Your task to perform on an android device: open app "TextNow: Call + Text Unlimited" (install if not already installed) Image 0: 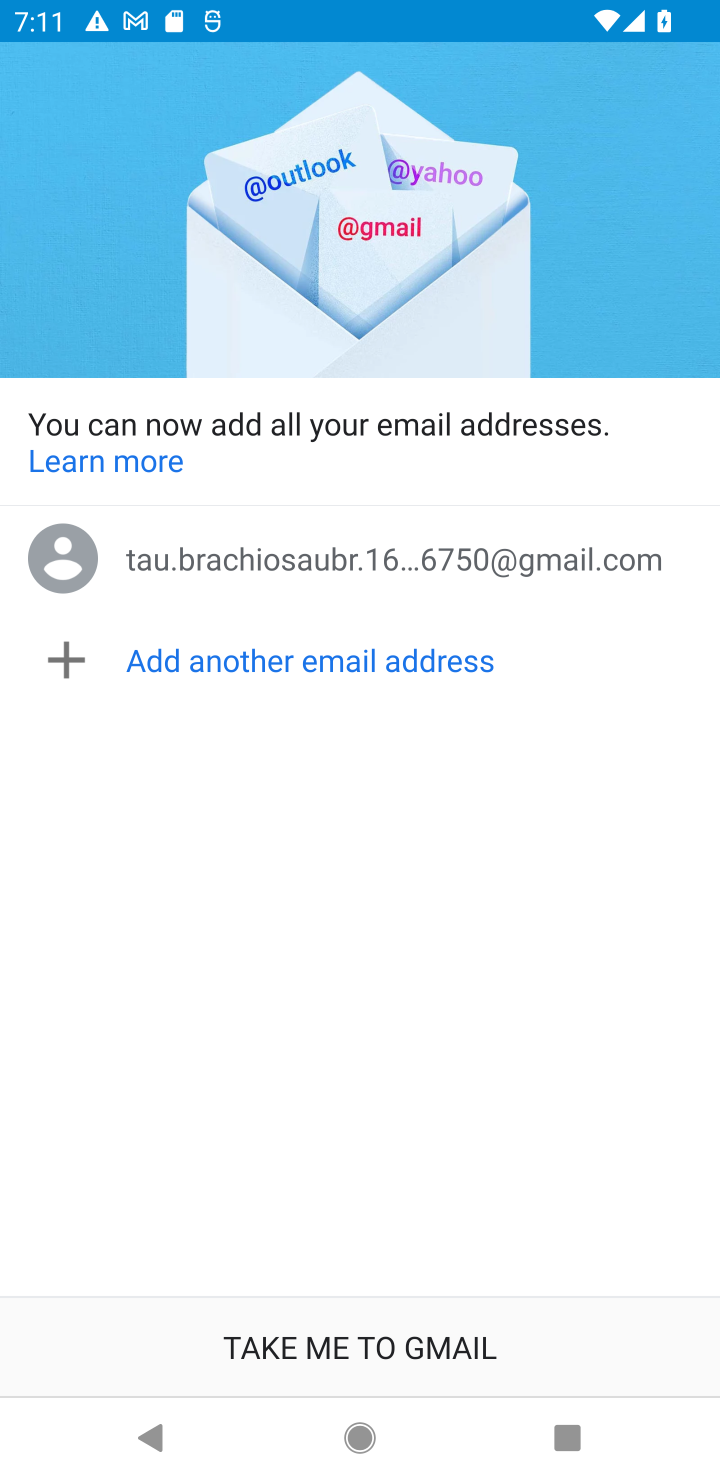
Step 0: press home button
Your task to perform on an android device: open app "TextNow: Call + Text Unlimited" (install if not already installed) Image 1: 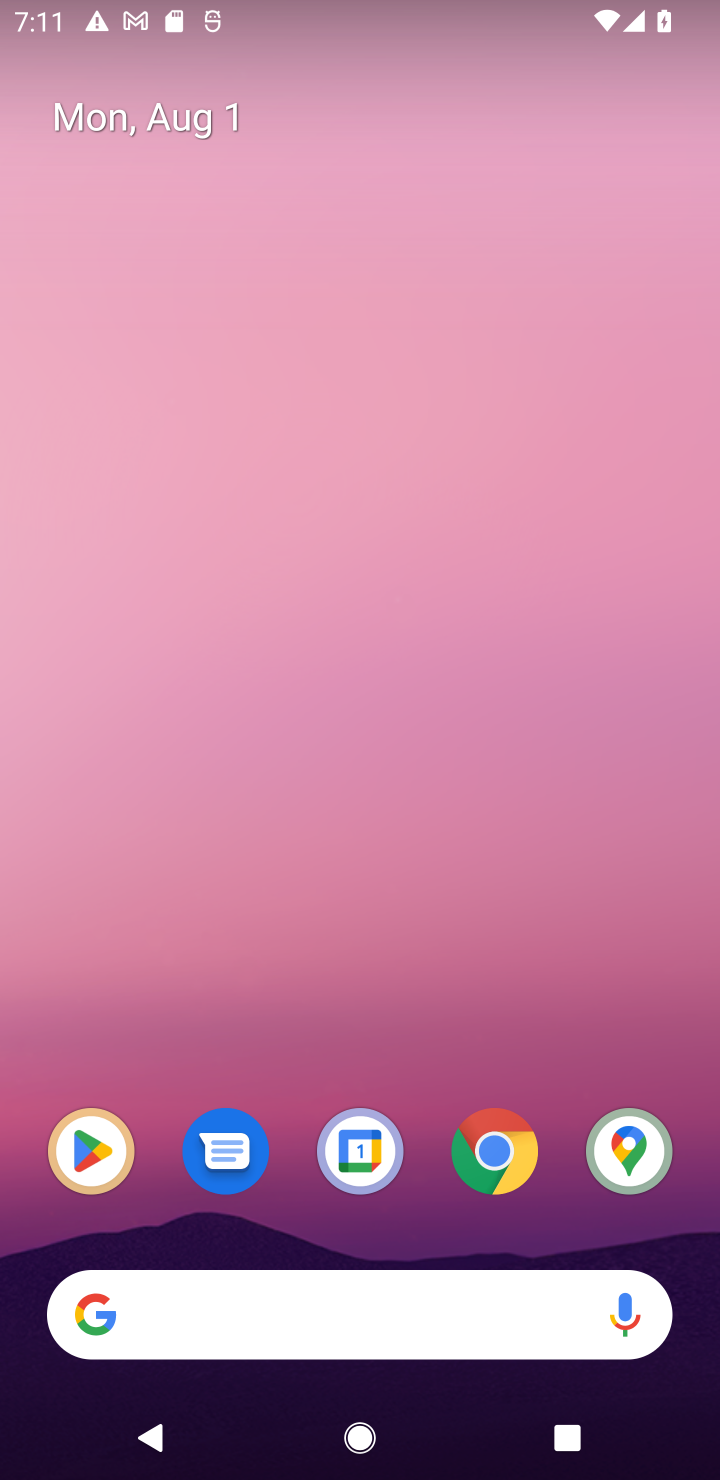
Step 1: drag from (477, 1253) to (563, 109)
Your task to perform on an android device: open app "TextNow: Call + Text Unlimited" (install if not already installed) Image 2: 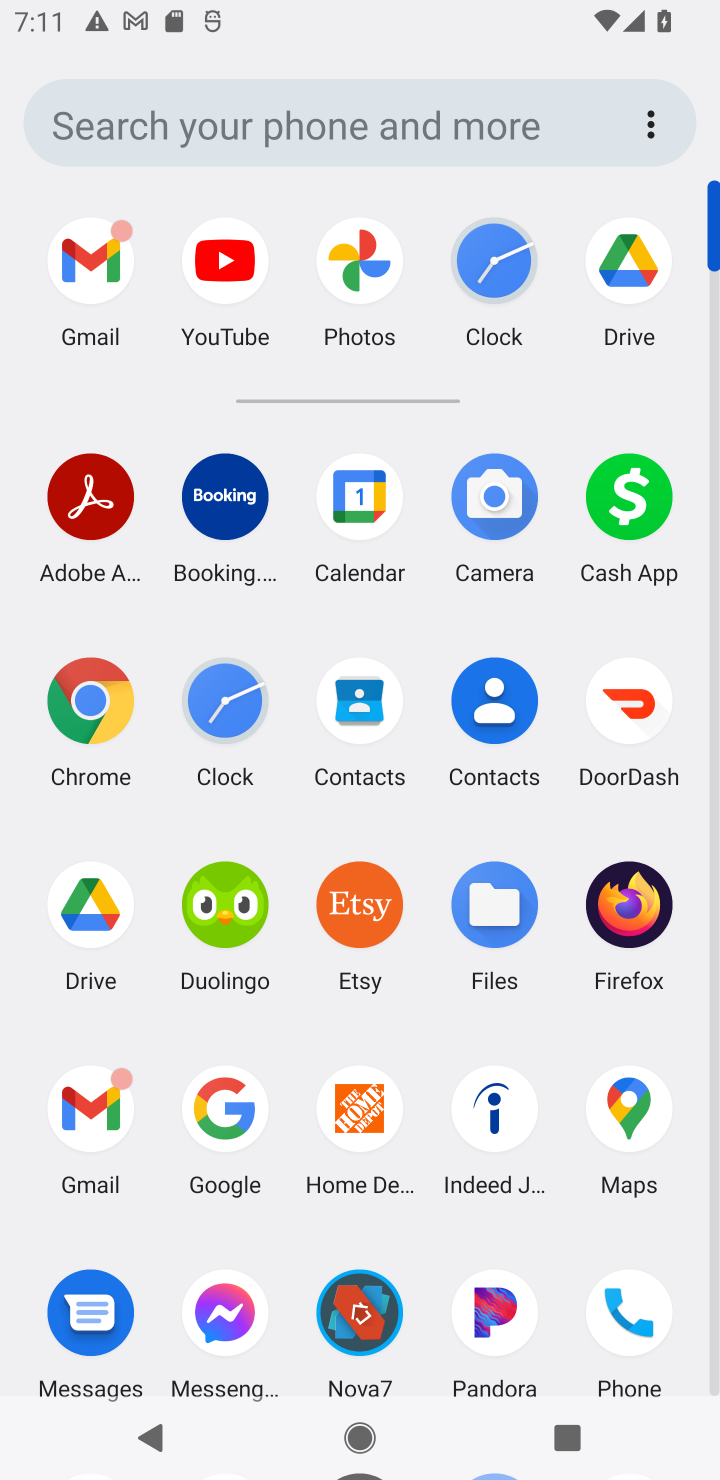
Step 2: drag from (547, 1260) to (571, 507)
Your task to perform on an android device: open app "TextNow: Call + Text Unlimited" (install if not already installed) Image 3: 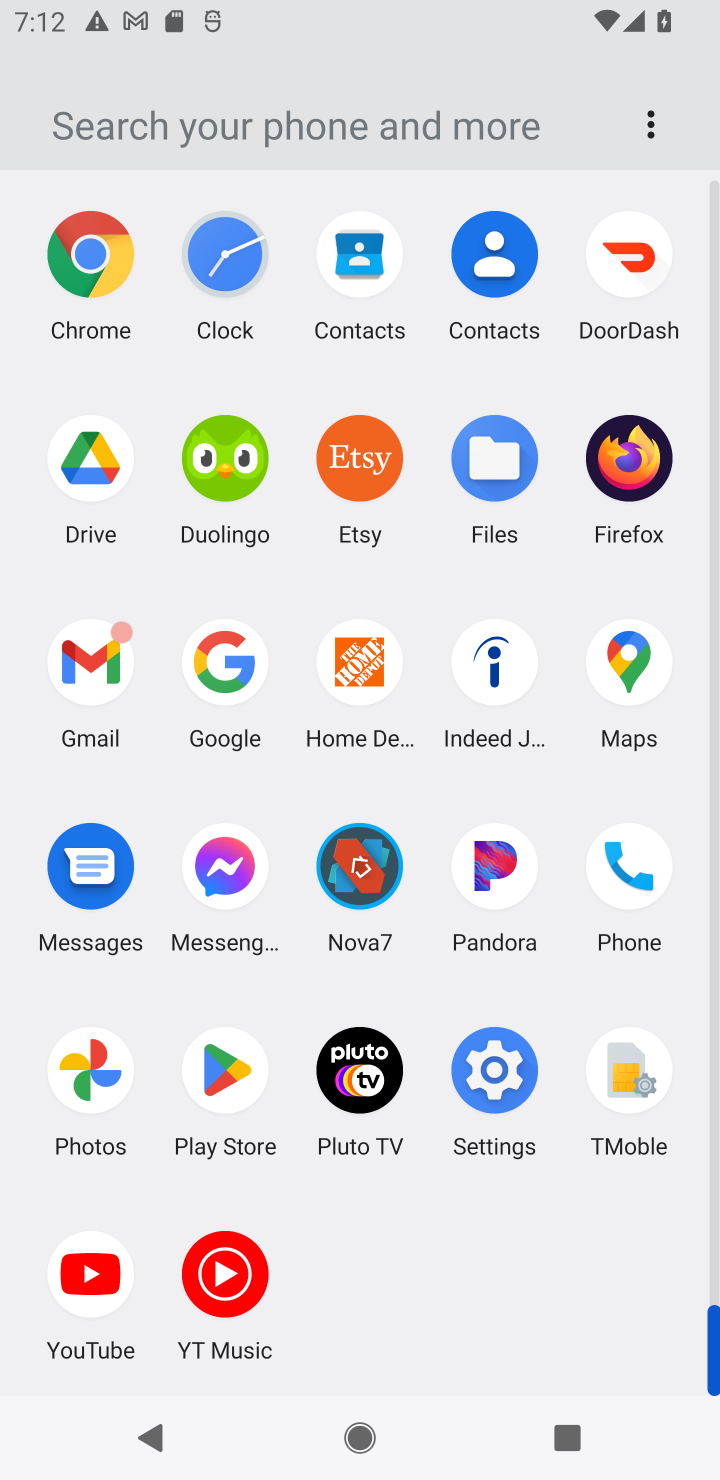
Step 3: click (200, 1073)
Your task to perform on an android device: open app "TextNow: Call + Text Unlimited" (install if not already installed) Image 4: 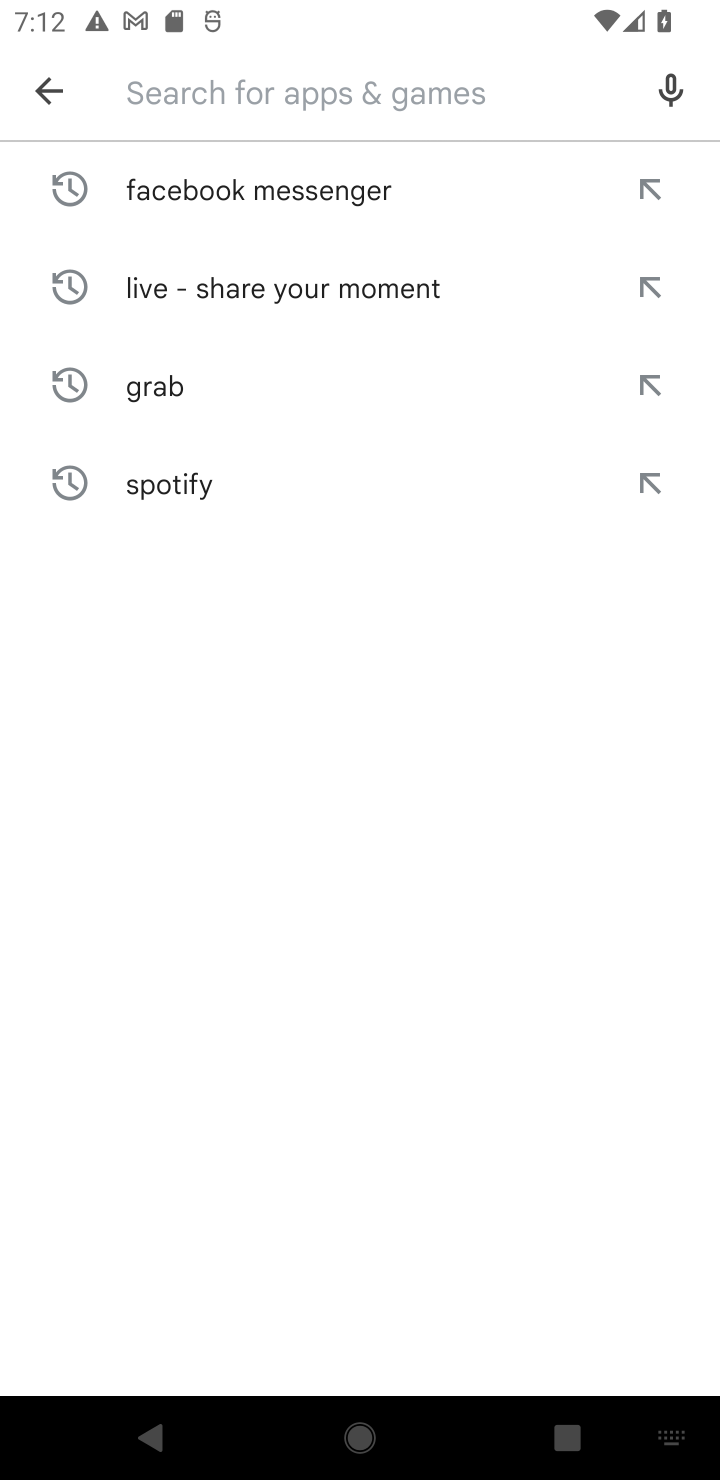
Step 4: type "Textnow: call + text unlimited"
Your task to perform on an android device: open app "TextNow: Call + Text Unlimited" (install if not already installed) Image 5: 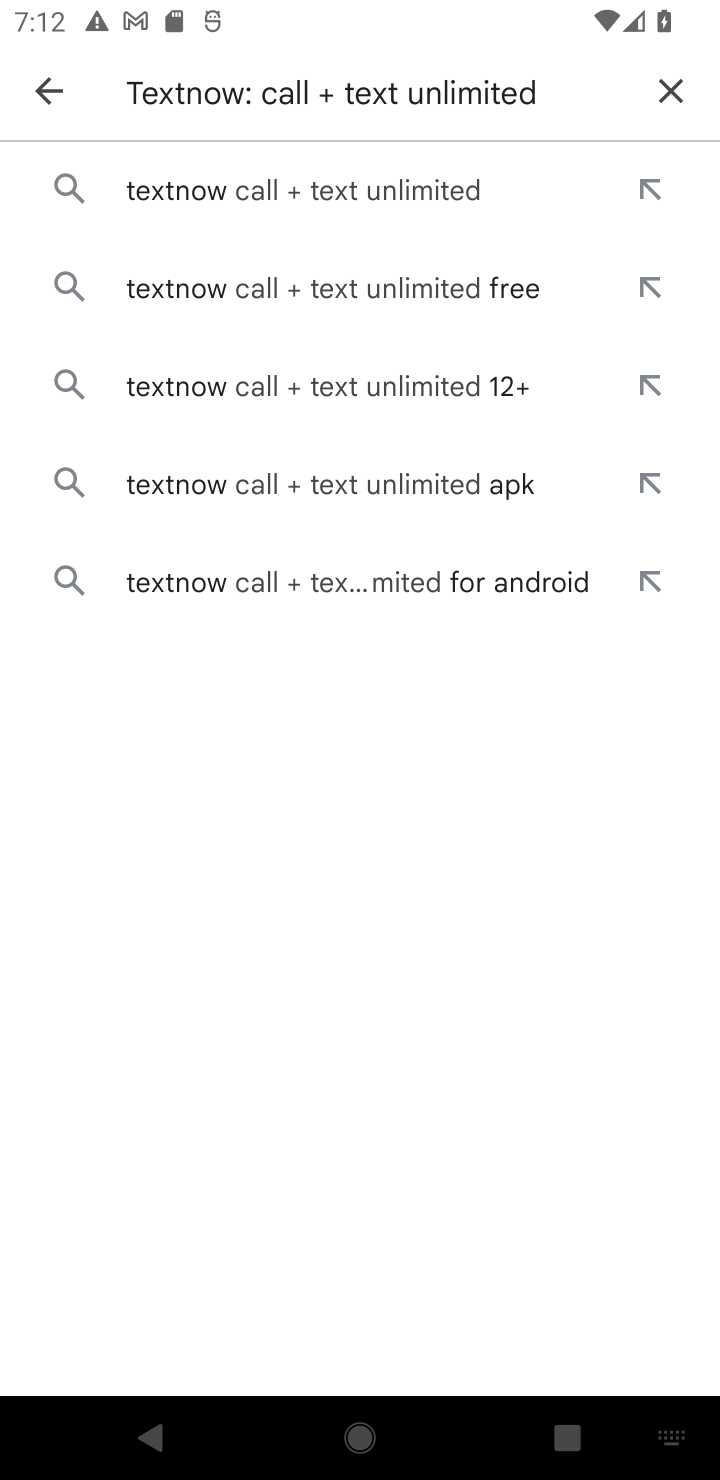
Step 5: click (416, 179)
Your task to perform on an android device: open app "TextNow: Call + Text Unlimited" (install if not already installed) Image 6: 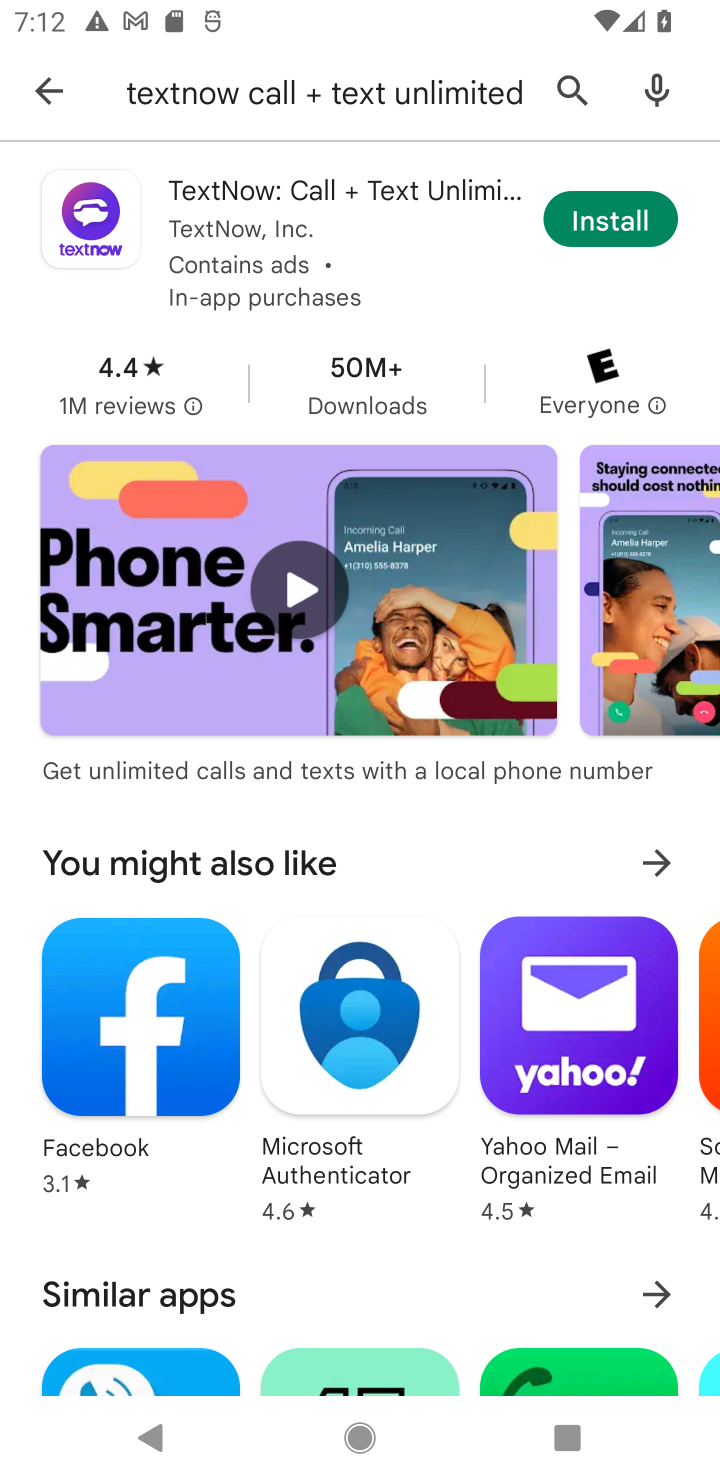
Step 6: click (654, 215)
Your task to perform on an android device: open app "TextNow: Call + Text Unlimited" (install if not already installed) Image 7: 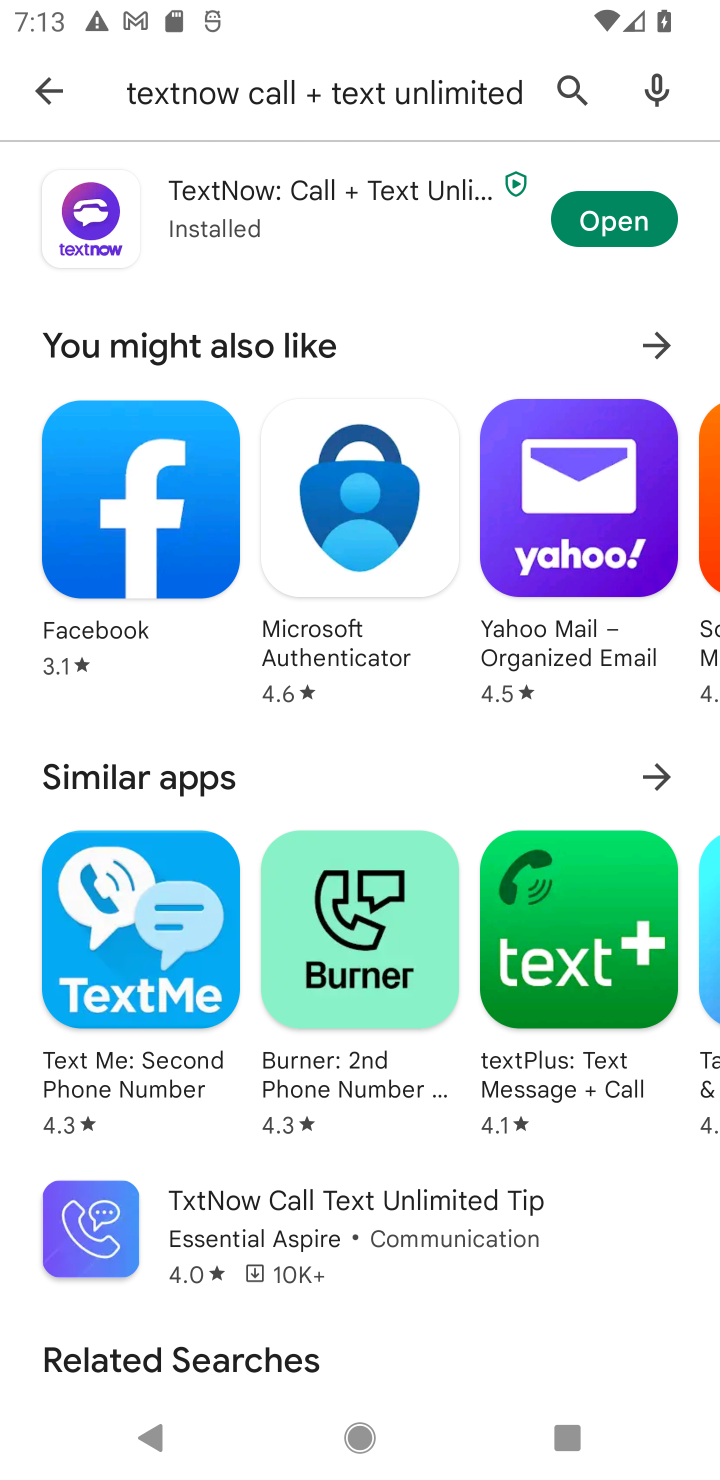
Step 7: task complete